Your task to perform on an android device: see creations saved in the google photos Image 0: 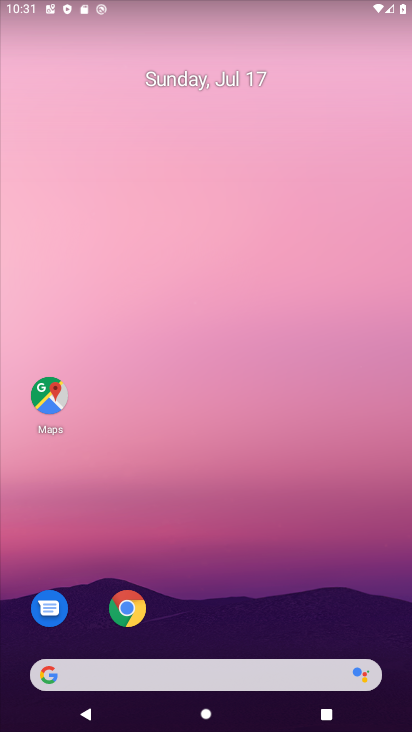
Step 0: click (211, 265)
Your task to perform on an android device: see creations saved in the google photos Image 1: 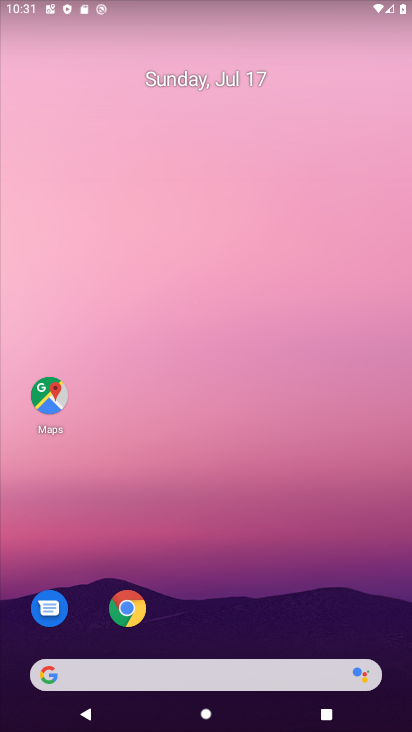
Step 1: drag from (273, 182) to (308, 17)
Your task to perform on an android device: see creations saved in the google photos Image 2: 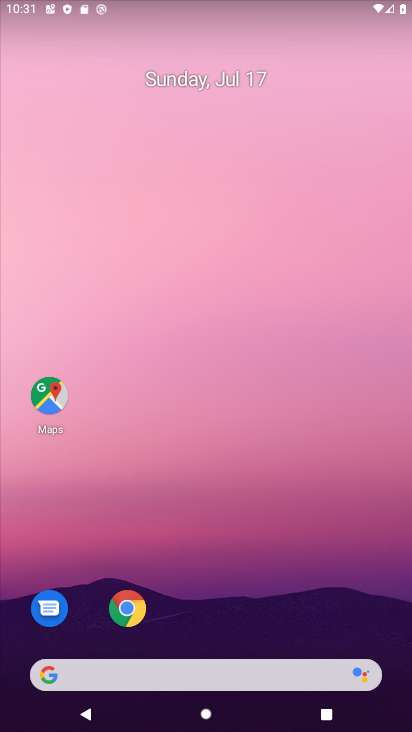
Step 2: drag from (25, 725) to (266, 50)
Your task to perform on an android device: see creations saved in the google photos Image 3: 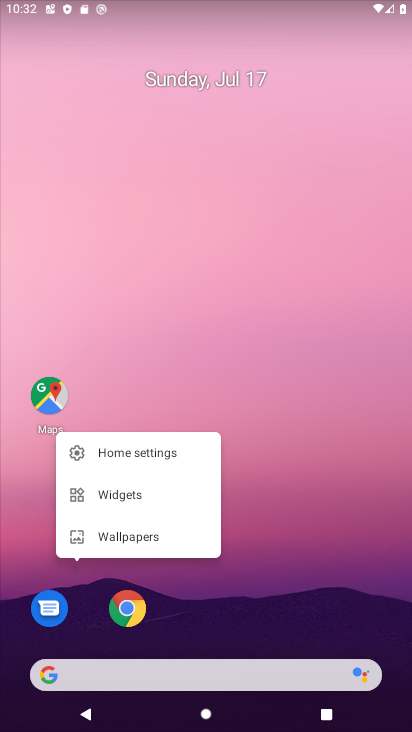
Step 3: click (17, 725)
Your task to perform on an android device: see creations saved in the google photos Image 4: 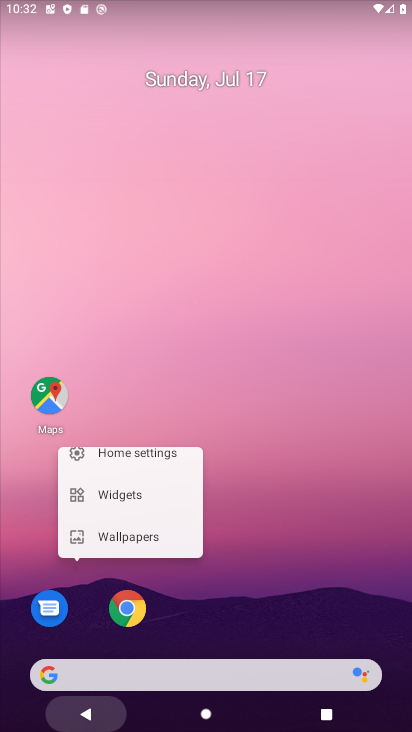
Step 4: drag from (244, 245) to (340, 10)
Your task to perform on an android device: see creations saved in the google photos Image 5: 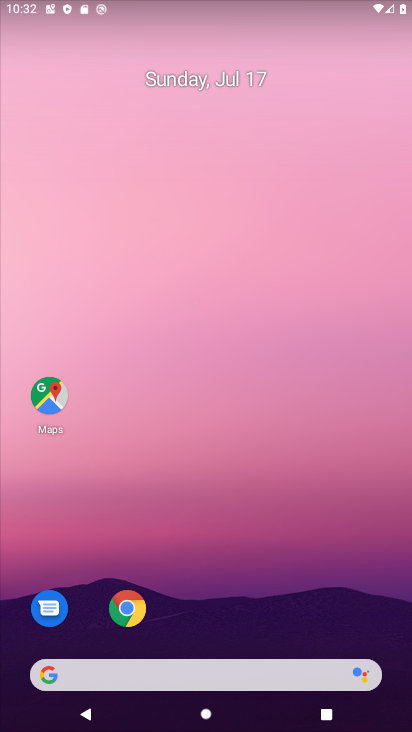
Step 5: drag from (30, 688) to (183, 299)
Your task to perform on an android device: see creations saved in the google photos Image 6: 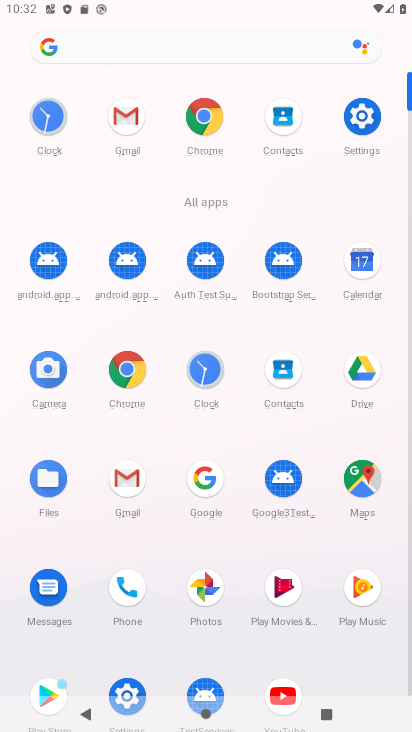
Step 6: click (216, 593)
Your task to perform on an android device: see creations saved in the google photos Image 7: 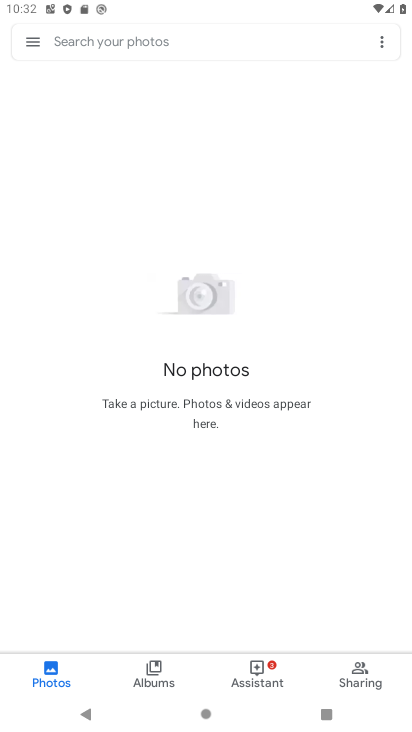
Step 7: task complete